Your task to perform on an android device: find snoozed emails in the gmail app Image 0: 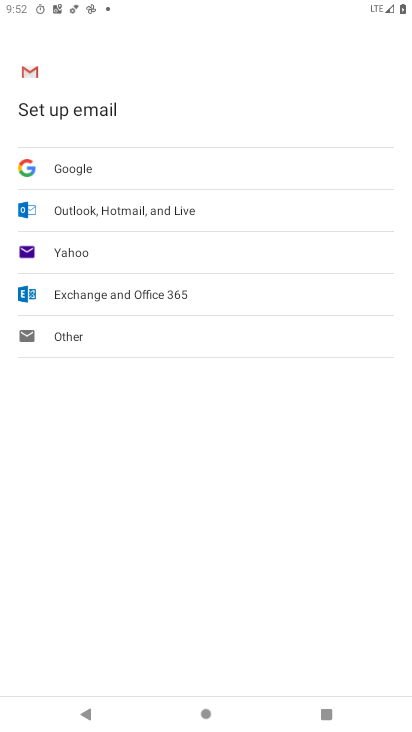
Step 0: press home button
Your task to perform on an android device: find snoozed emails in the gmail app Image 1: 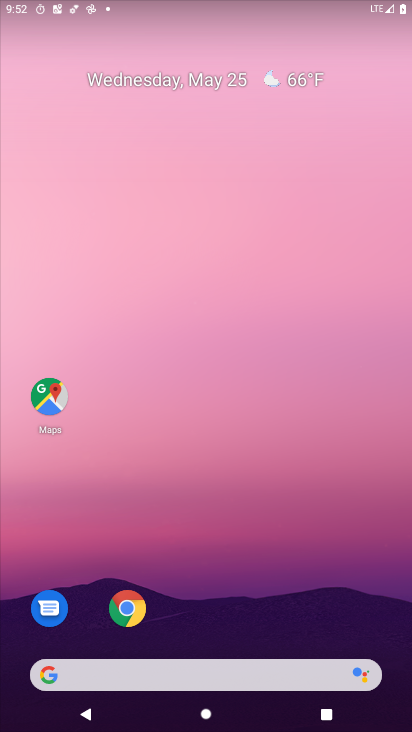
Step 1: drag from (233, 729) to (219, 277)
Your task to perform on an android device: find snoozed emails in the gmail app Image 2: 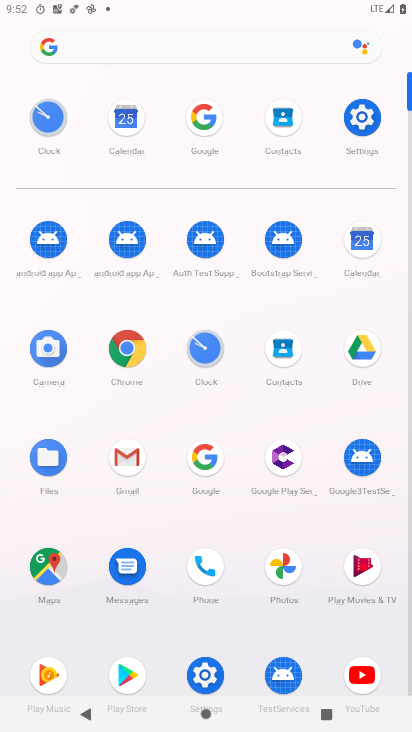
Step 2: click (126, 454)
Your task to perform on an android device: find snoozed emails in the gmail app Image 3: 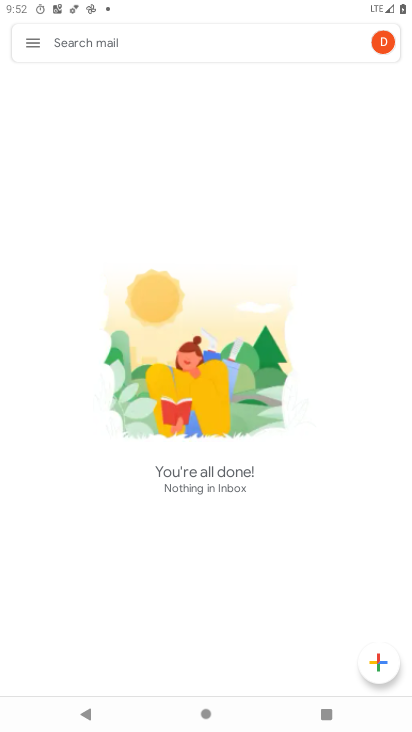
Step 3: click (33, 46)
Your task to perform on an android device: find snoozed emails in the gmail app Image 4: 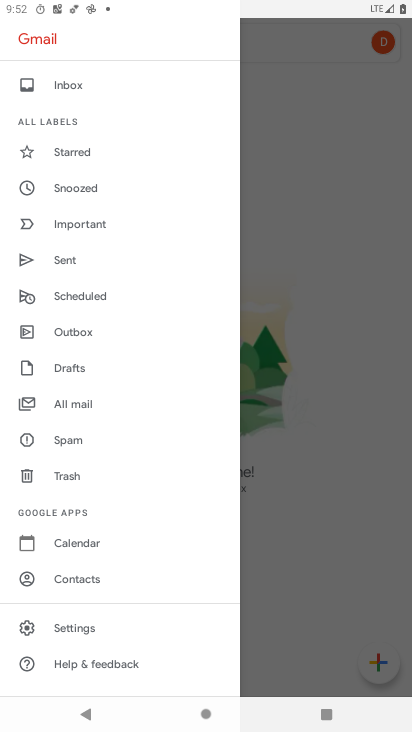
Step 4: click (74, 188)
Your task to perform on an android device: find snoozed emails in the gmail app Image 5: 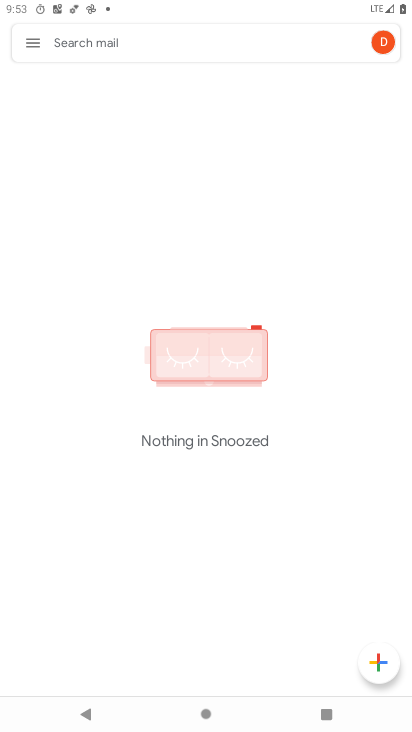
Step 5: task complete